Your task to perform on an android device: Go to battery settings Image 0: 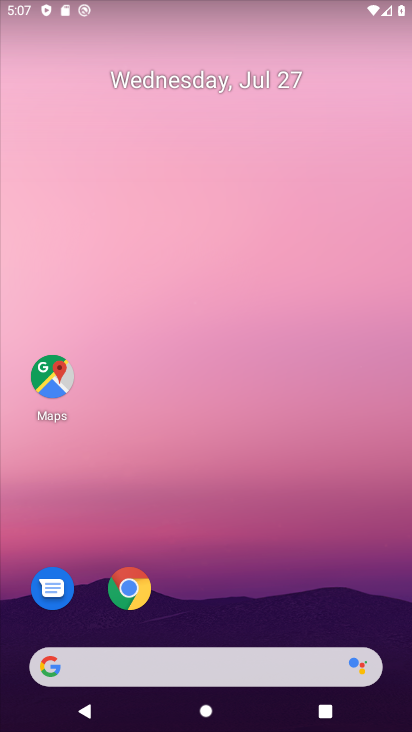
Step 0: drag from (222, 685) to (231, 39)
Your task to perform on an android device: Go to battery settings Image 1: 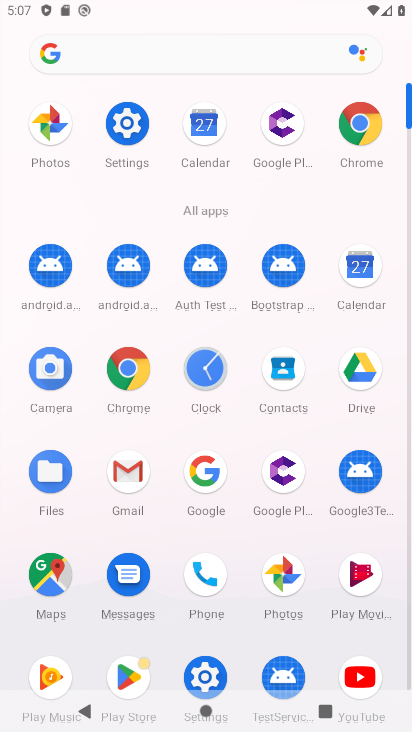
Step 1: click (128, 106)
Your task to perform on an android device: Go to battery settings Image 2: 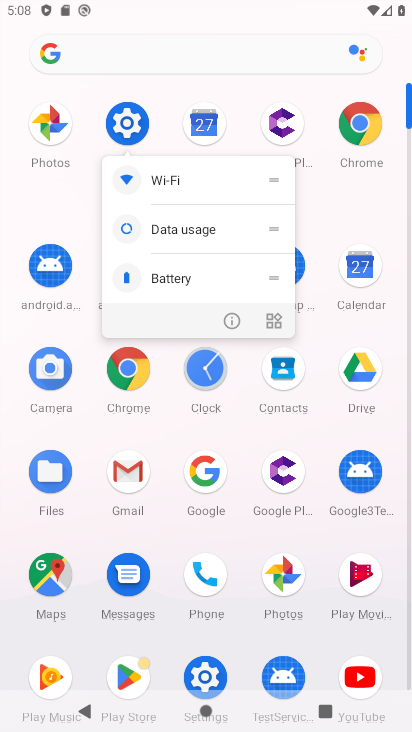
Step 2: click (163, 276)
Your task to perform on an android device: Go to battery settings Image 3: 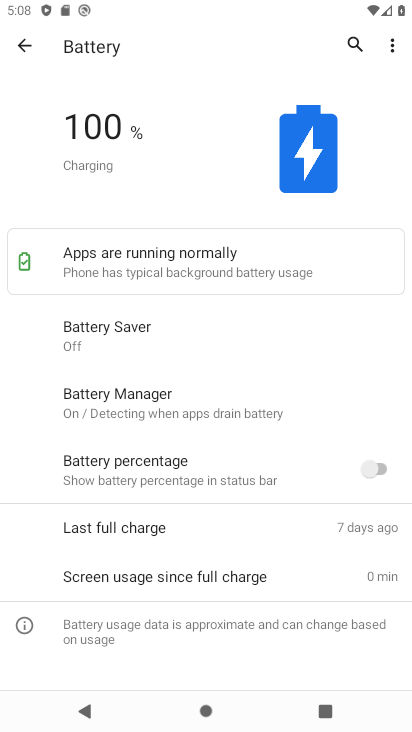
Step 3: task complete